Your task to perform on an android device: Open the map Image 0: 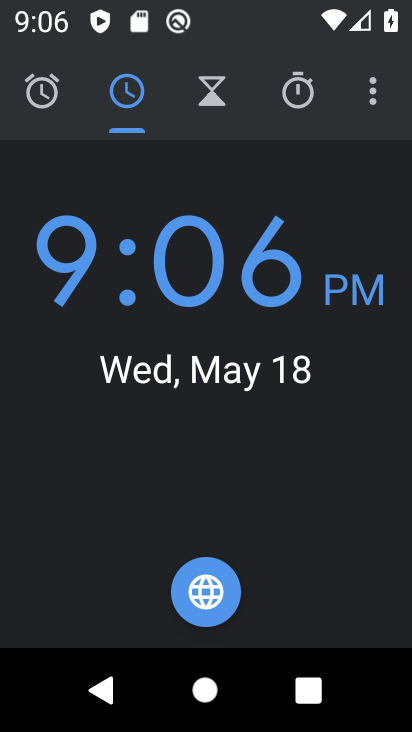
Step 0: press home button
Your task to perform on an android device: Open the map Image 1: 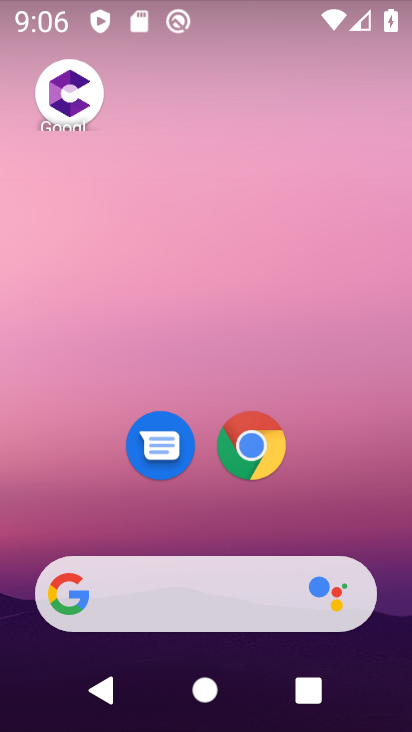
Step 1: drag from (139, 589) to (273, 128)
Your task to perform on an android device: Open the map Image 2: 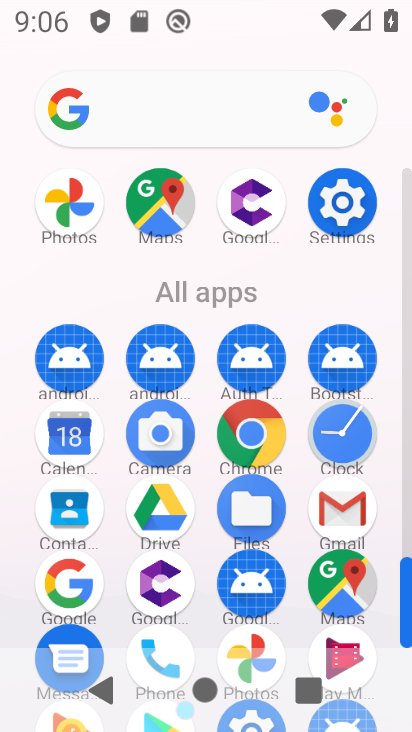
Step 2: click (349, 590)
Your task to perform on an android device: Open the map Image 3: 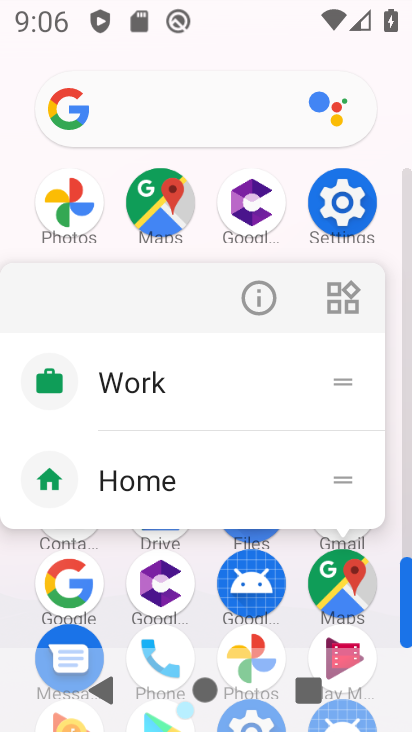
Step 3: click (340, 592)
Your task to perform on an android device: Open the map Image 4: 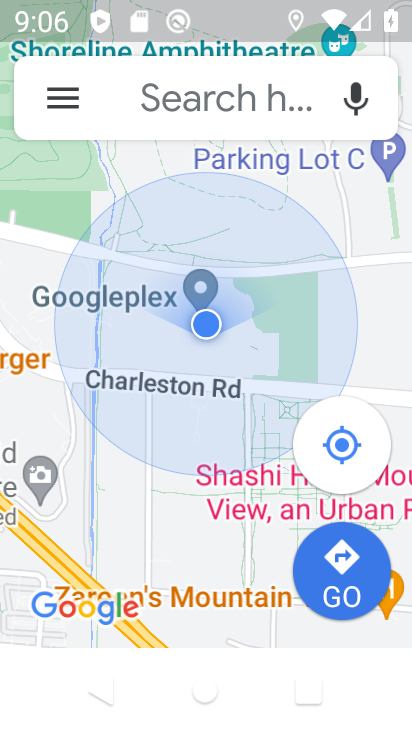
Step 4: task complete